Your task to perform on an android device: Clear all items from cart on ebay.com. Search for razer thresher on ebay.com, select the first entry, add it to the cart, then select checkout. Image 0: 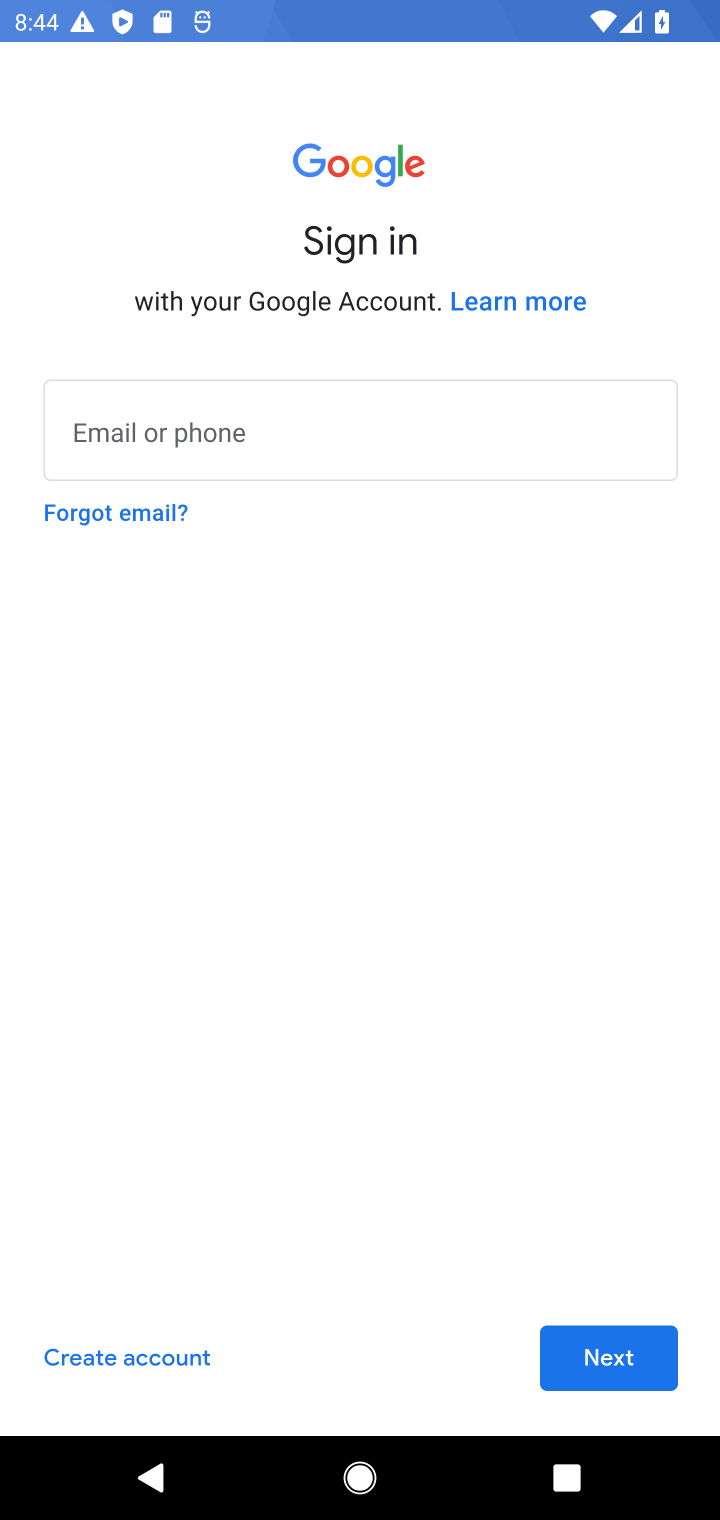
Step 0: press home button
Your task to perform on an android device: Clear all items from cart on ebay.com. Search for razer thresher on ebay.com, select the first entry, add it to the cart, then select checkout. Image 1: 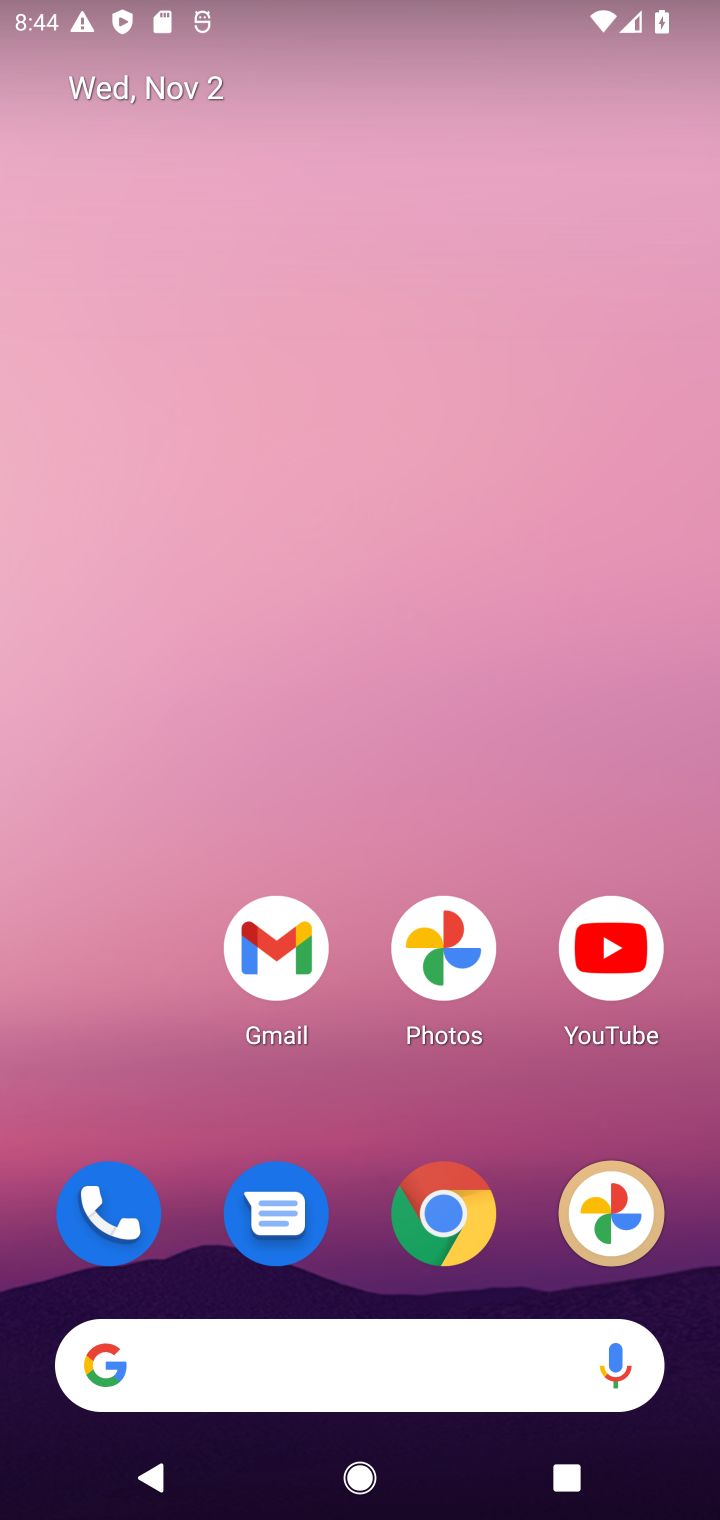
Step 1: click (445, 1226)
Your task to perform on an android device: Clear all items from cart on ebay.com. Search for razer thresher on ebay.com, select the first entry, add it to the cart, then select checkout. Image 2: 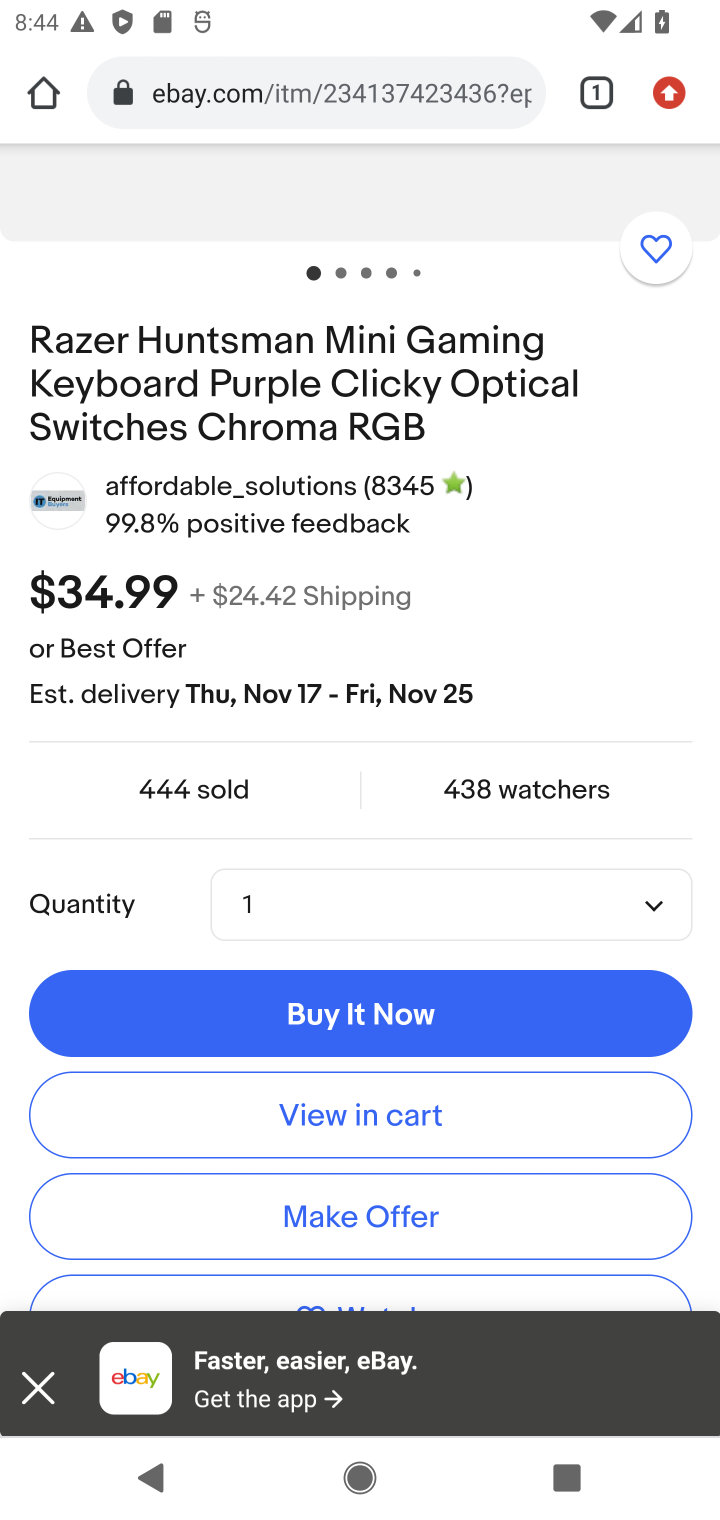
Step 2: click (315, 86)
Your task to perform on an android device: Clear all items from cart on ebay.com. Search for razer thresher on ebay.com, select the first entry, add it to the cart, then select checkout. Image 3: 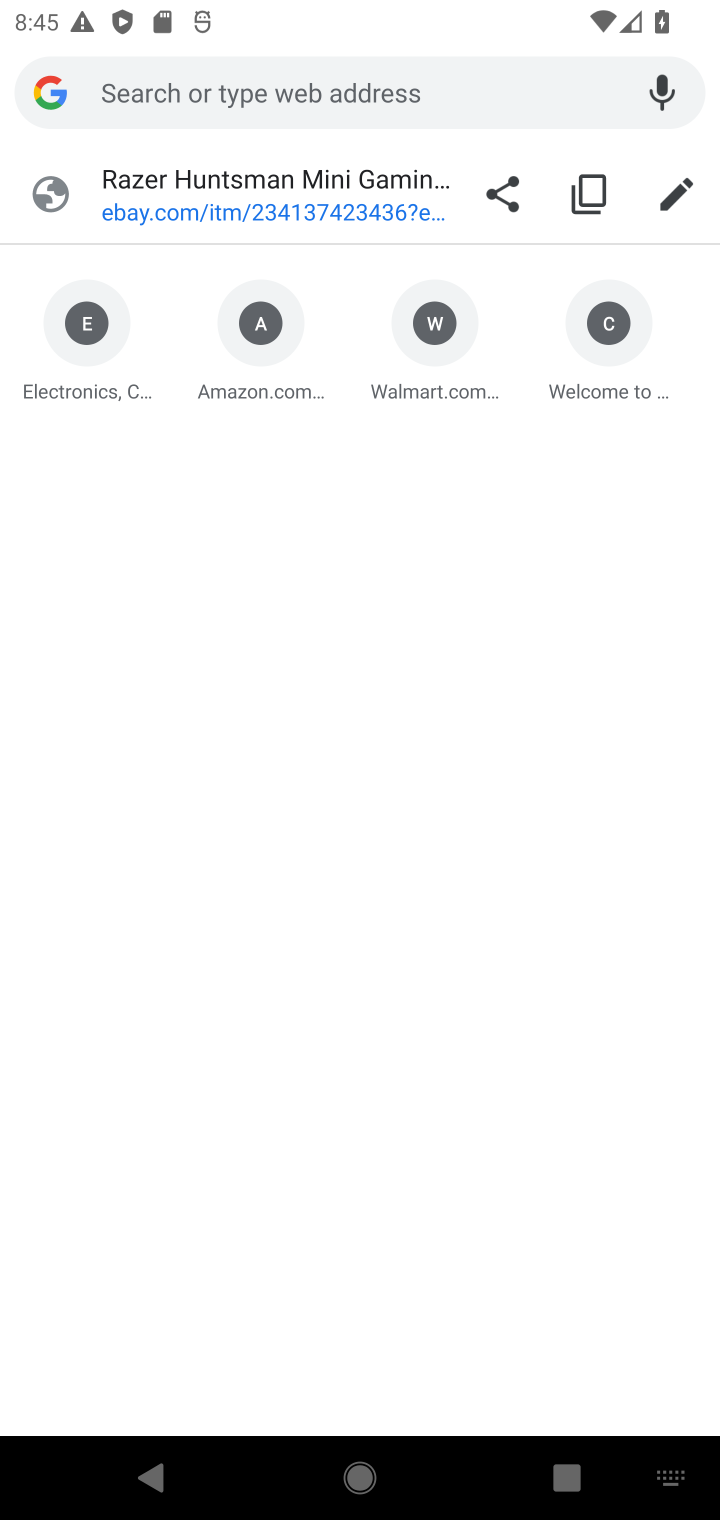
Step 3: type "ebay.com"
Your task to perform on an android device: Clear all items from cart on ebay.com. Search for razer thresher on ebay.com, select the first entry, add it to the cart, then select checkout. Image 4: 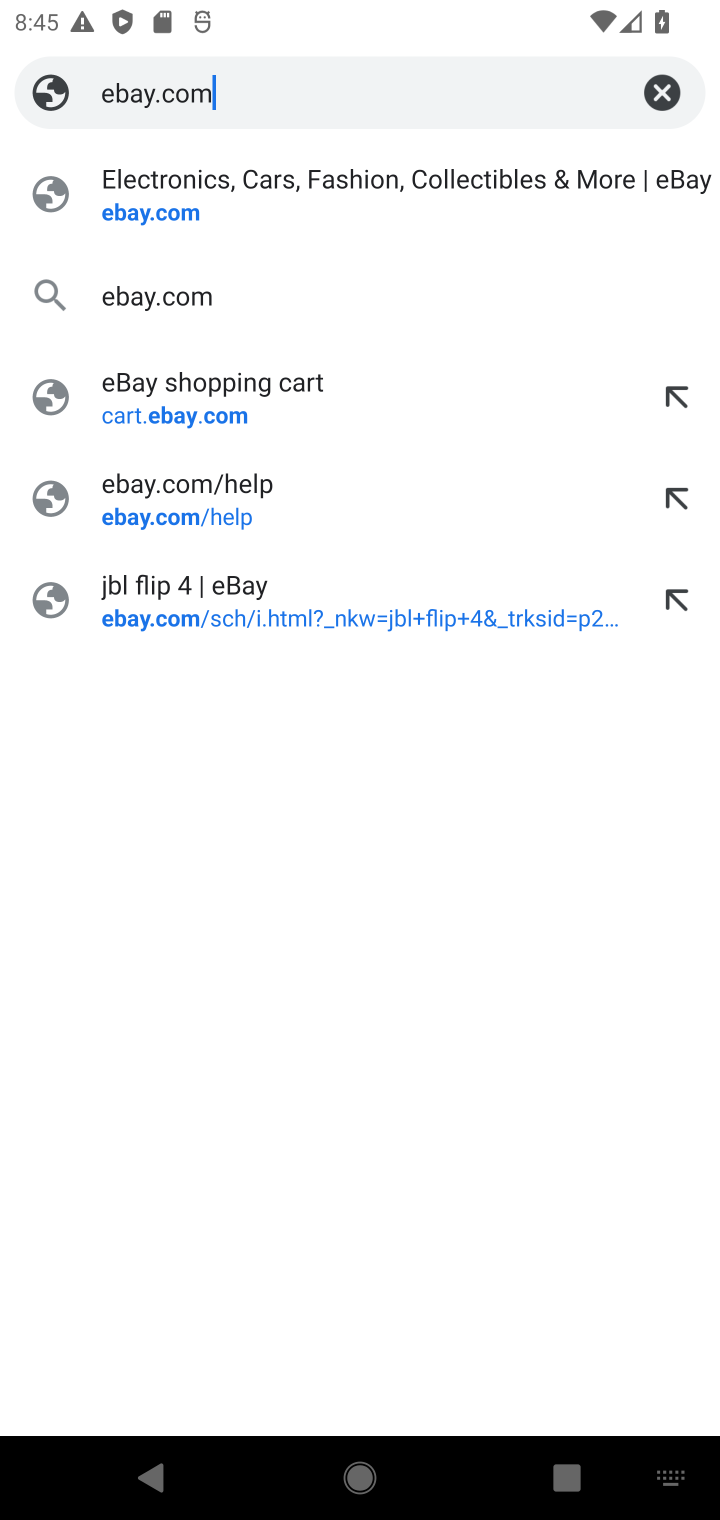
Step 4: click (166, 204)
Your task to perform on an android device: Clear all items from cart on ebay.com. Search for razer thresher on ebay.com, select the first entry, add it to the cart, then select checkout. Image 5: 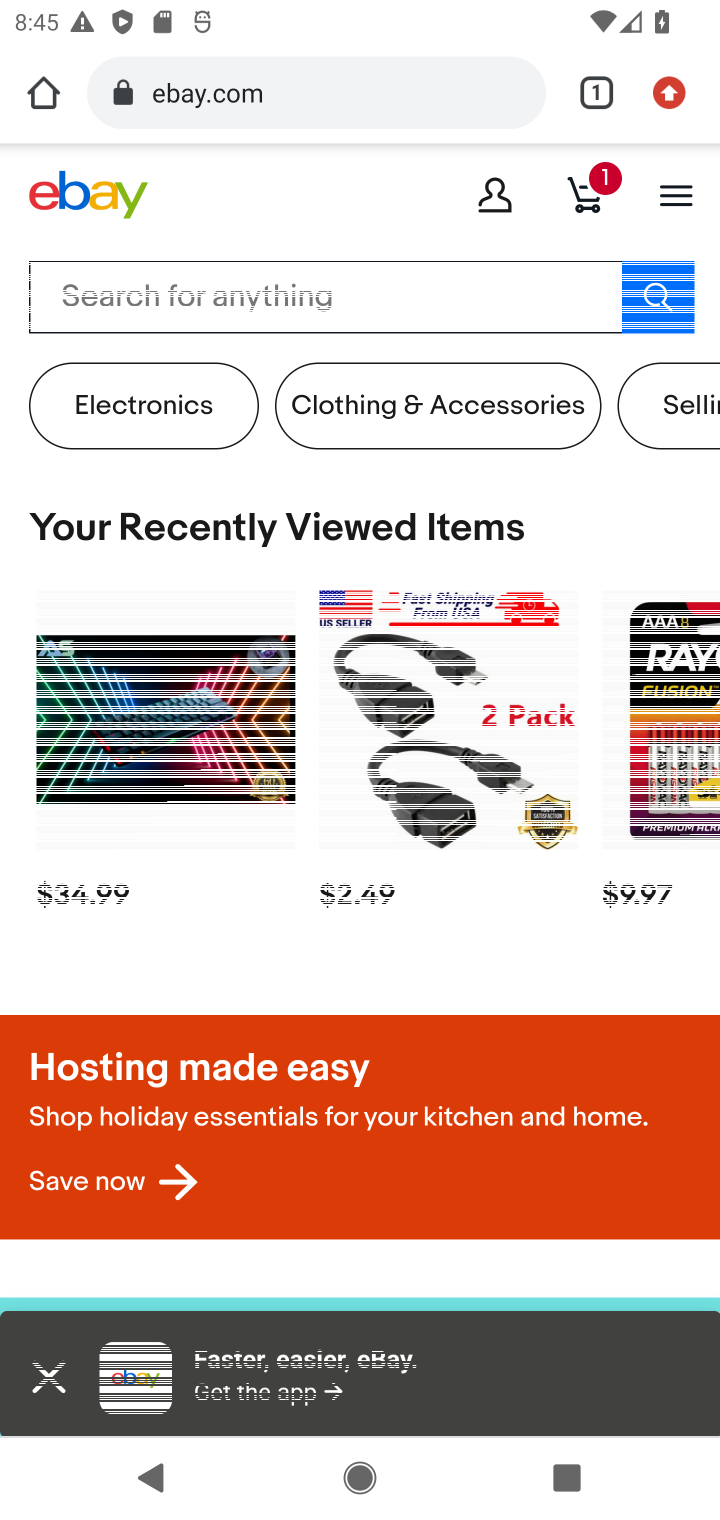
Step 5: click (605, 195)
Your task to perform on an android device: Clear all items from cart on ebay.com. Search for razer thresher on ebay.com, select the first entry, add it to the cart, then select checkout. Image 6: 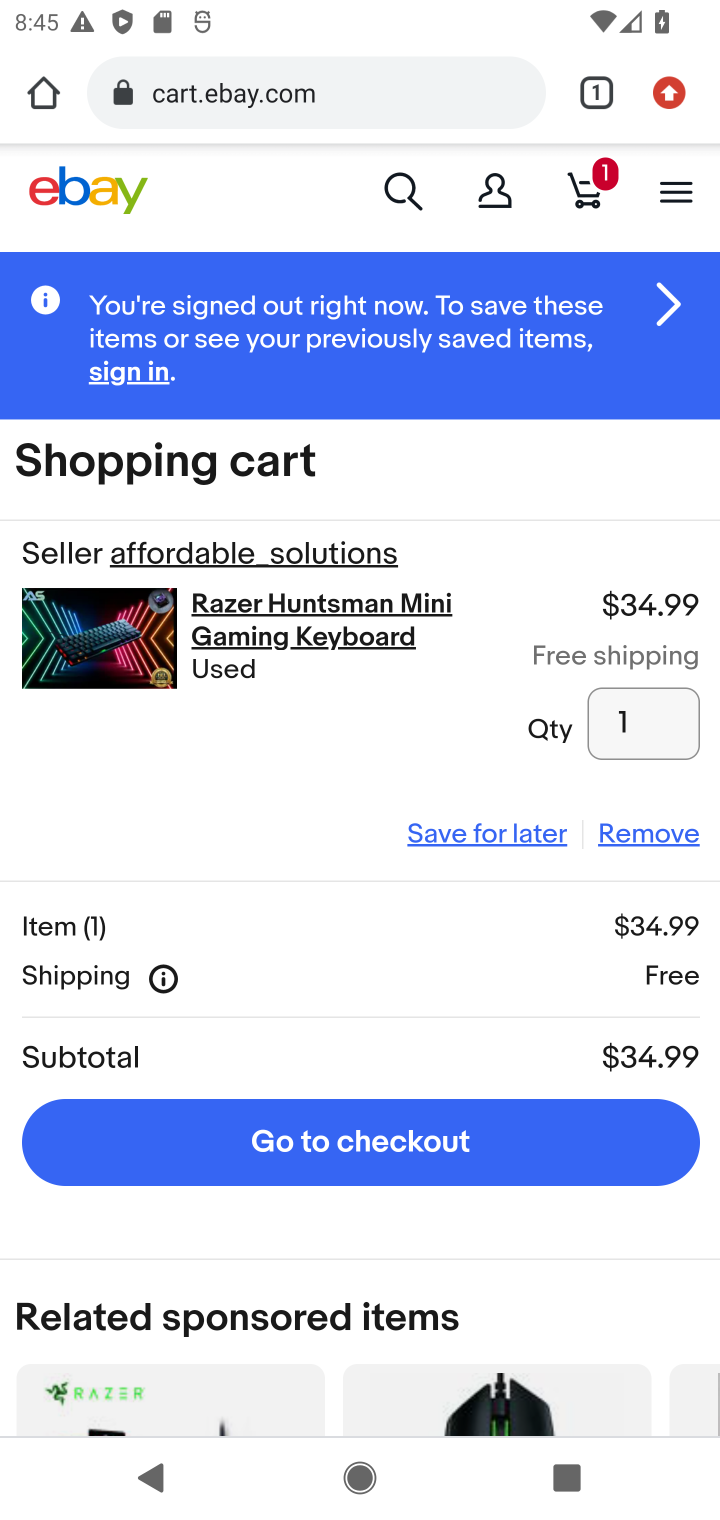
Step 6: click (630, 847)
Your task to perform on an android device: Clear all items from cart on ebay.com. Search for razer thresher on ebay.com, select the first entry, add it to the cart, then select checkout. Image 7: 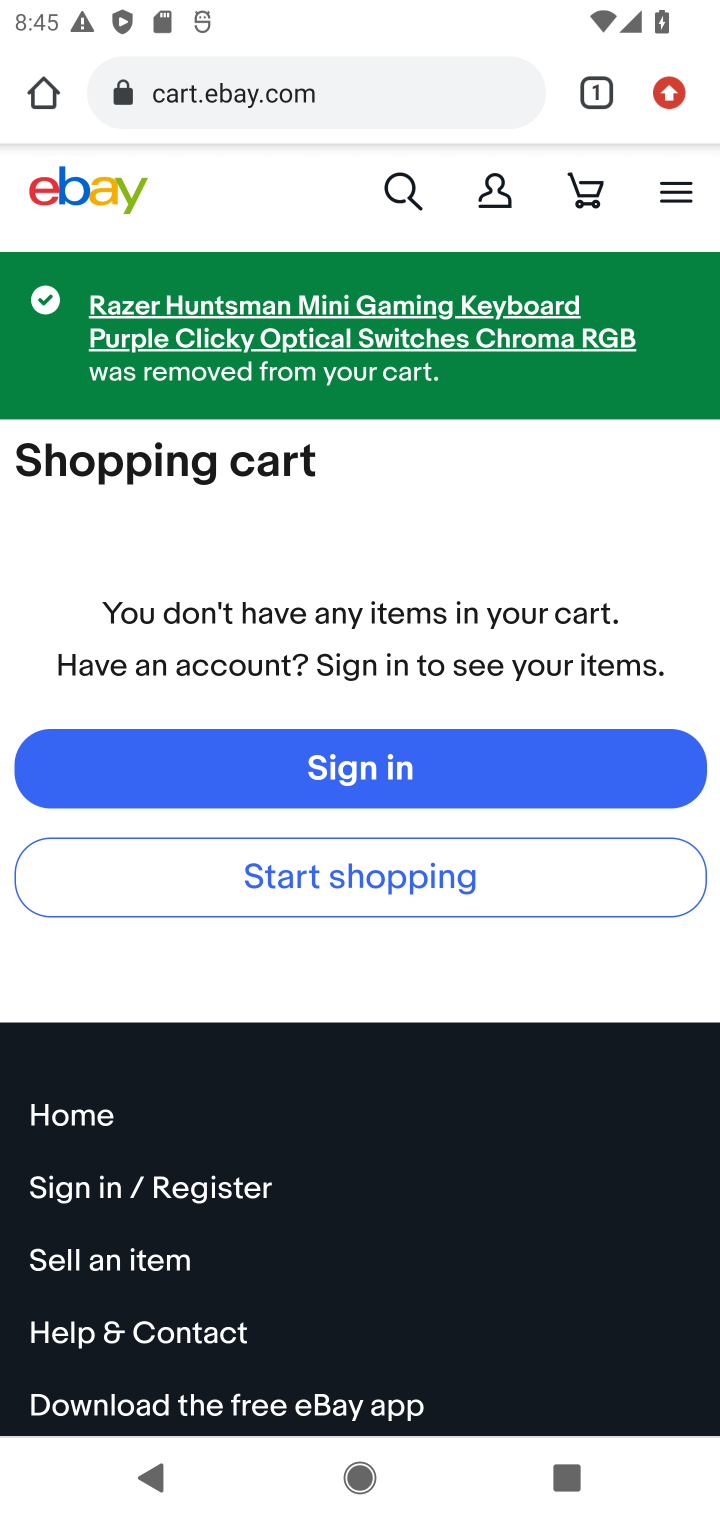
Step 7: click (401, 192)
Your task to perform on an android device: Clear all items from cart on ebay.com. Search for razer thresher on ebay.com, select the first entry, add it to the cart, then select checkout. Image 8: 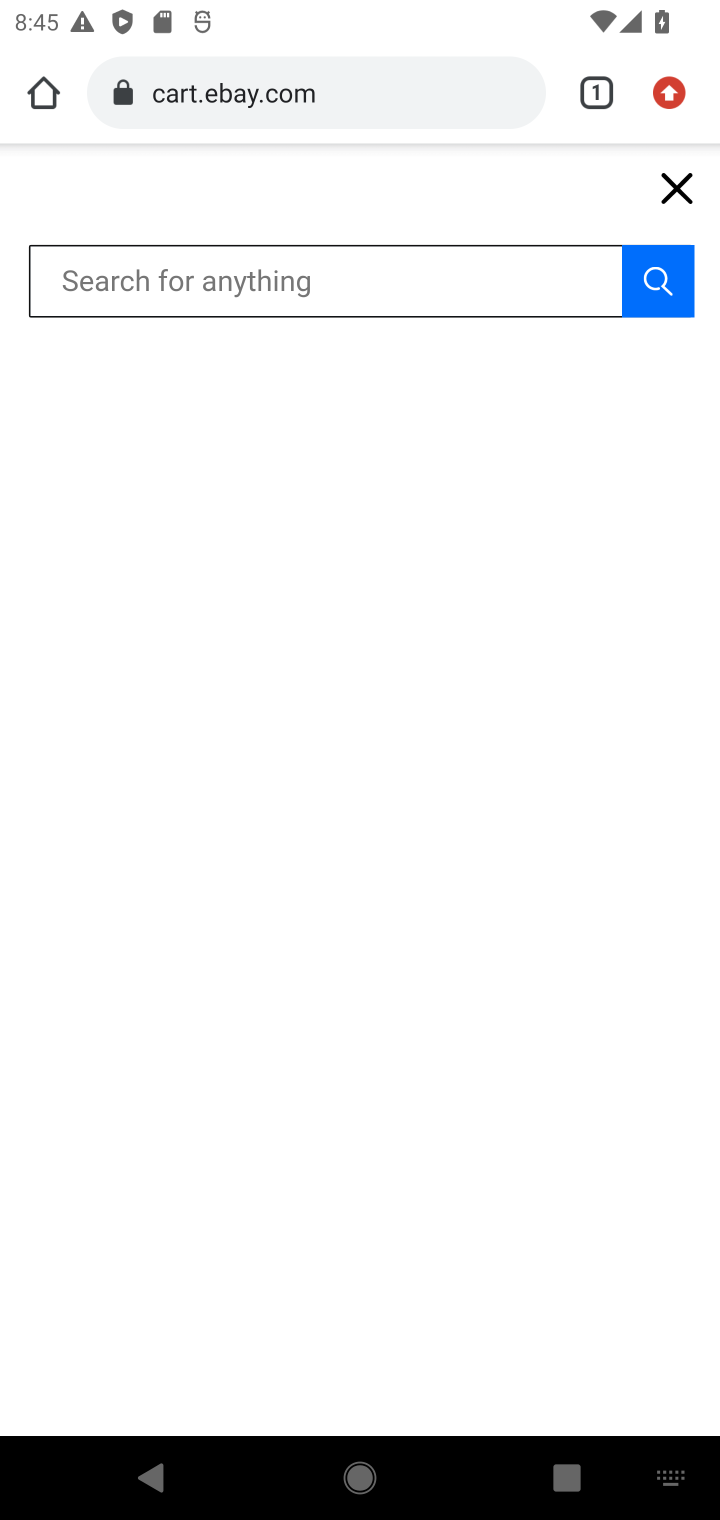
Step 8: type "razer thresher "
Your task to perform on an android device: Clear all items from cart on ebay.com. Search for razer thresher on ebay.com, select the first entry, add it to the cart, then select checkout. Image 9: 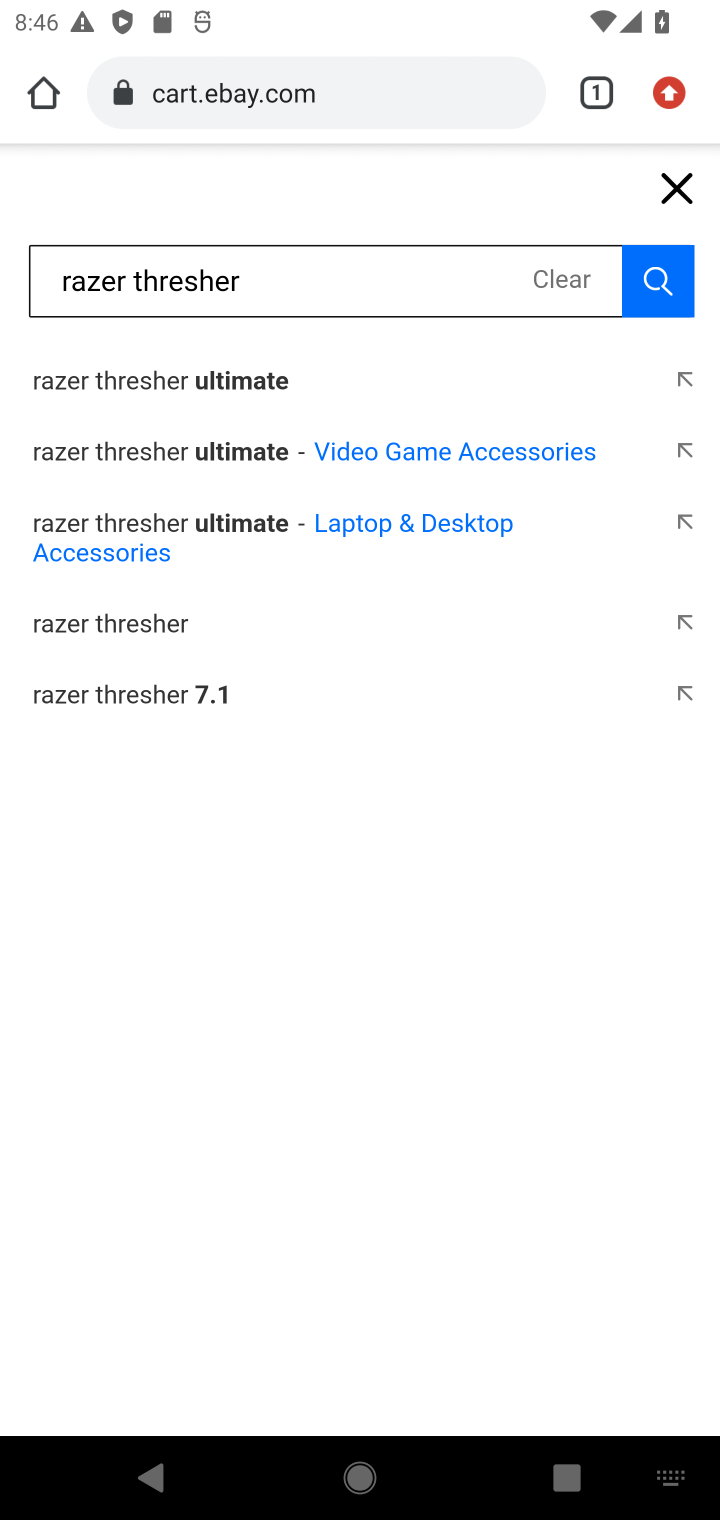
Step 9: click (97, 632)
Your task to perform on an android device: Clear all items from cart on ebay.com. Search for razer thresher on ebay.com, select the first entry, add it to the cart, then select checkout. Image 10: 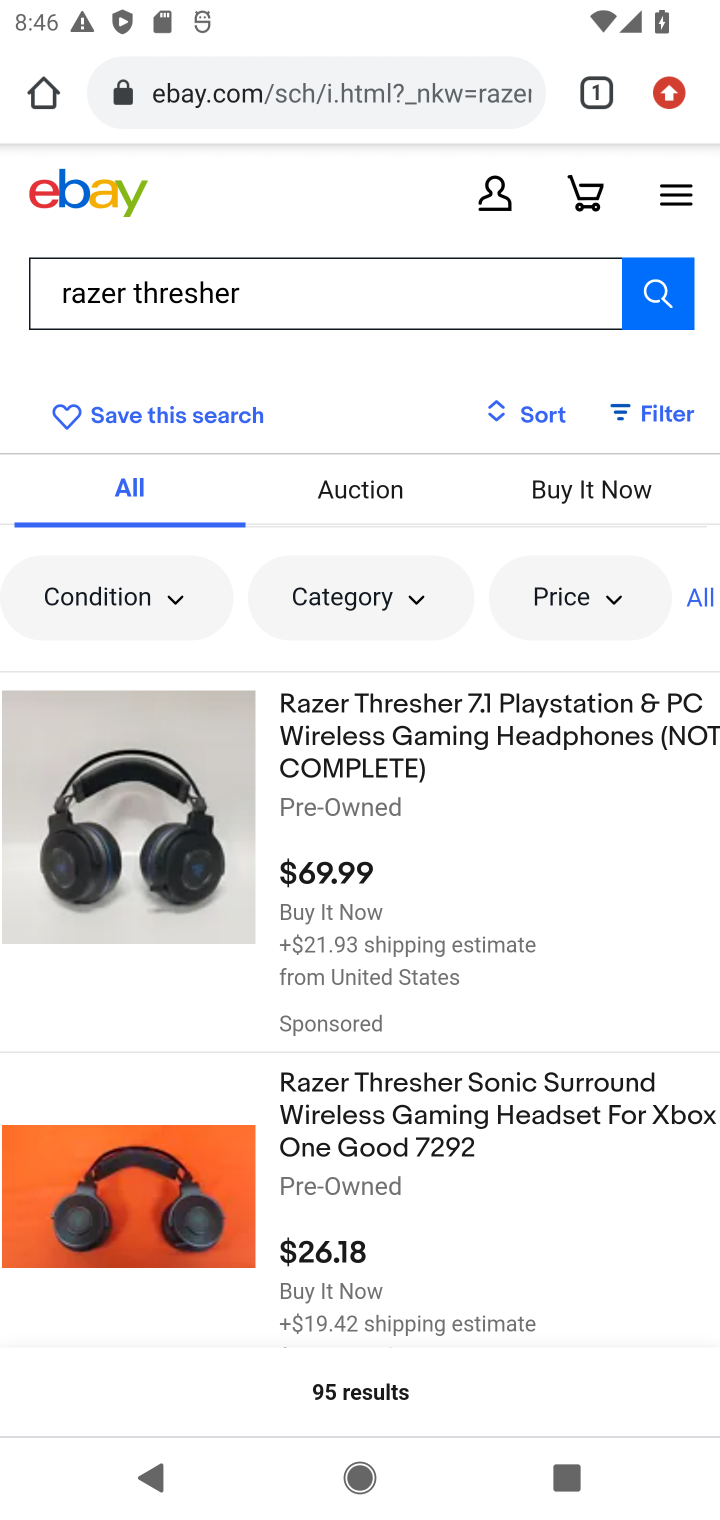
Step 10: click (348, 779)
Your task to perform on an android device: Clear all items from cart on ebay.com. Search for razer thresher on ebay.com, select the first entry, add it to the cart, then select checkout. Image 11: 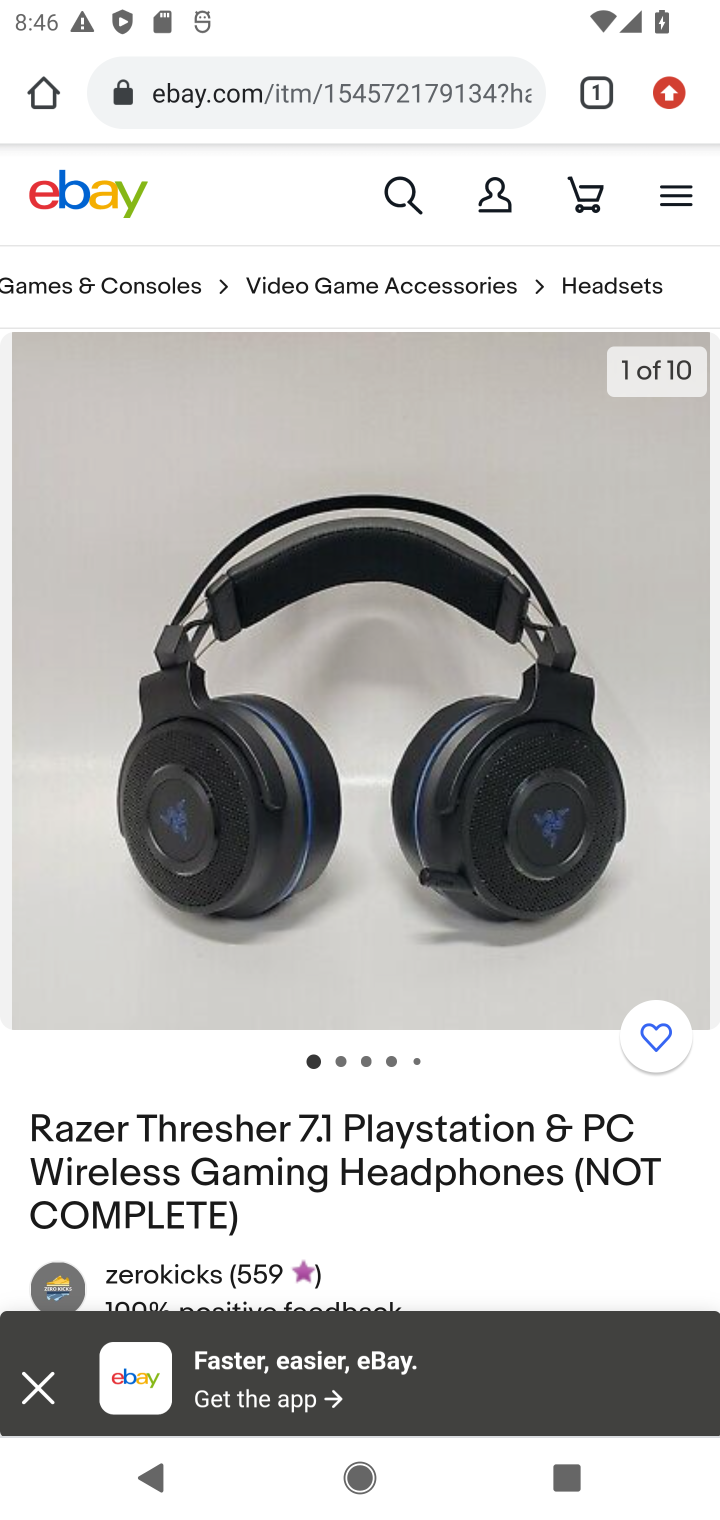
Step 11: drag from (421, 1138) to (440, 664)
Your task to perform on an android device: Clear all items from cart on ebay.com. Search for razer thresher on ebay.com, select the first entry, add it to the cart, then select checkout. Image 12: 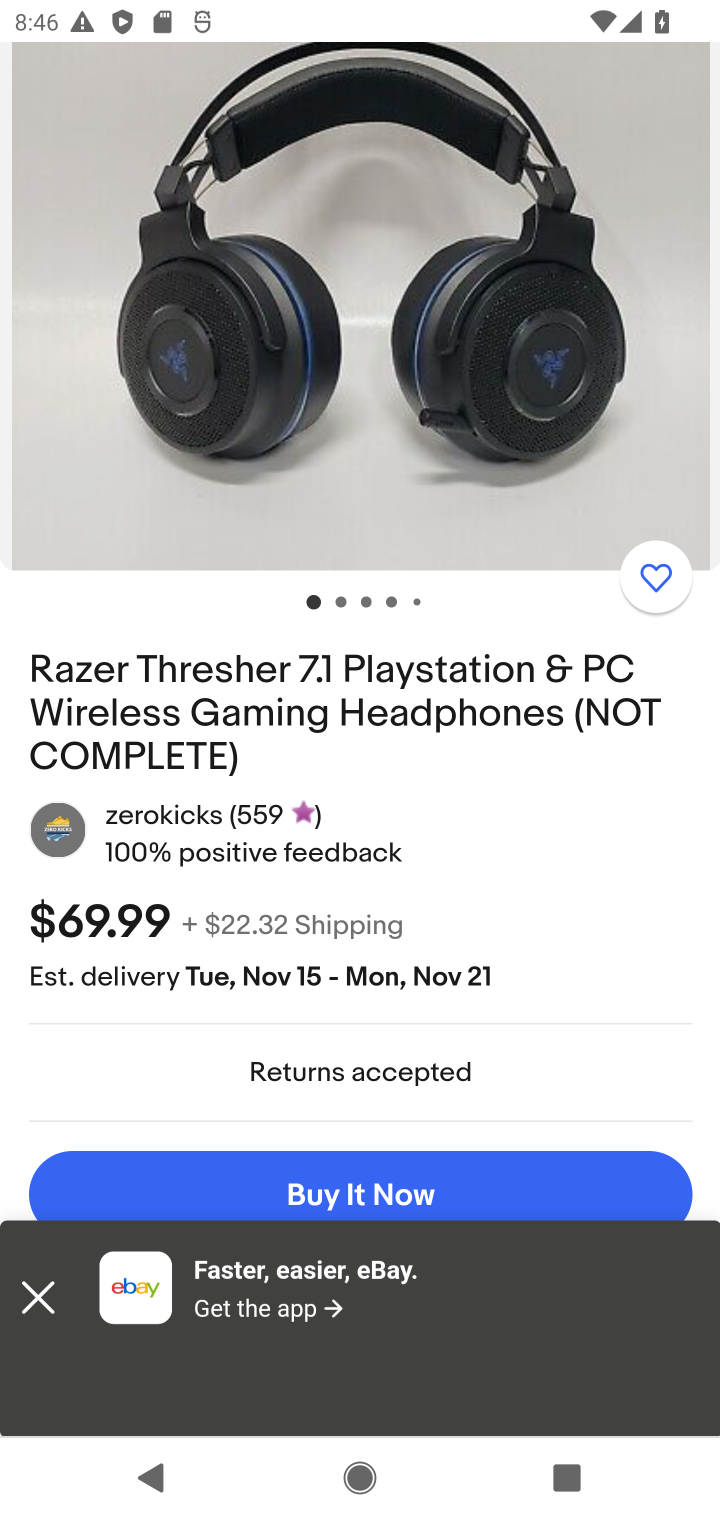
Step 12: drag from (359, 1103) to (398, 816)
Your task to perform on an android device: Clear all items from cart on ebay.com. Search for razer thresher on ebay.com, select the first entry, add it to the cart, then select checkout. Image 13: 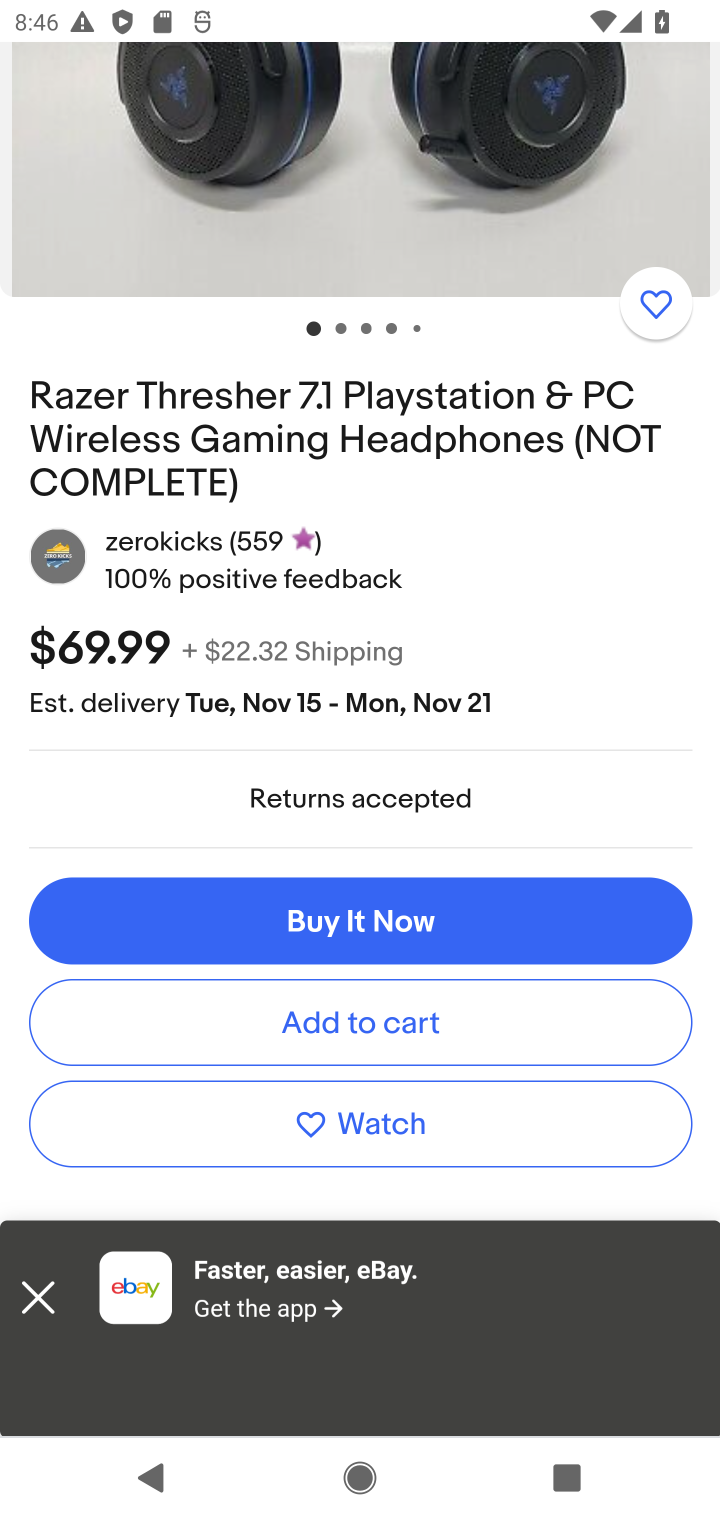
Step 13: click (341, 1022)
Your task to perform on an android device: Clear all items from cart on ebay.com. Search for razer thresher on ebay.com, select the first entry, add it to the cart, then select checkout. Image 14: 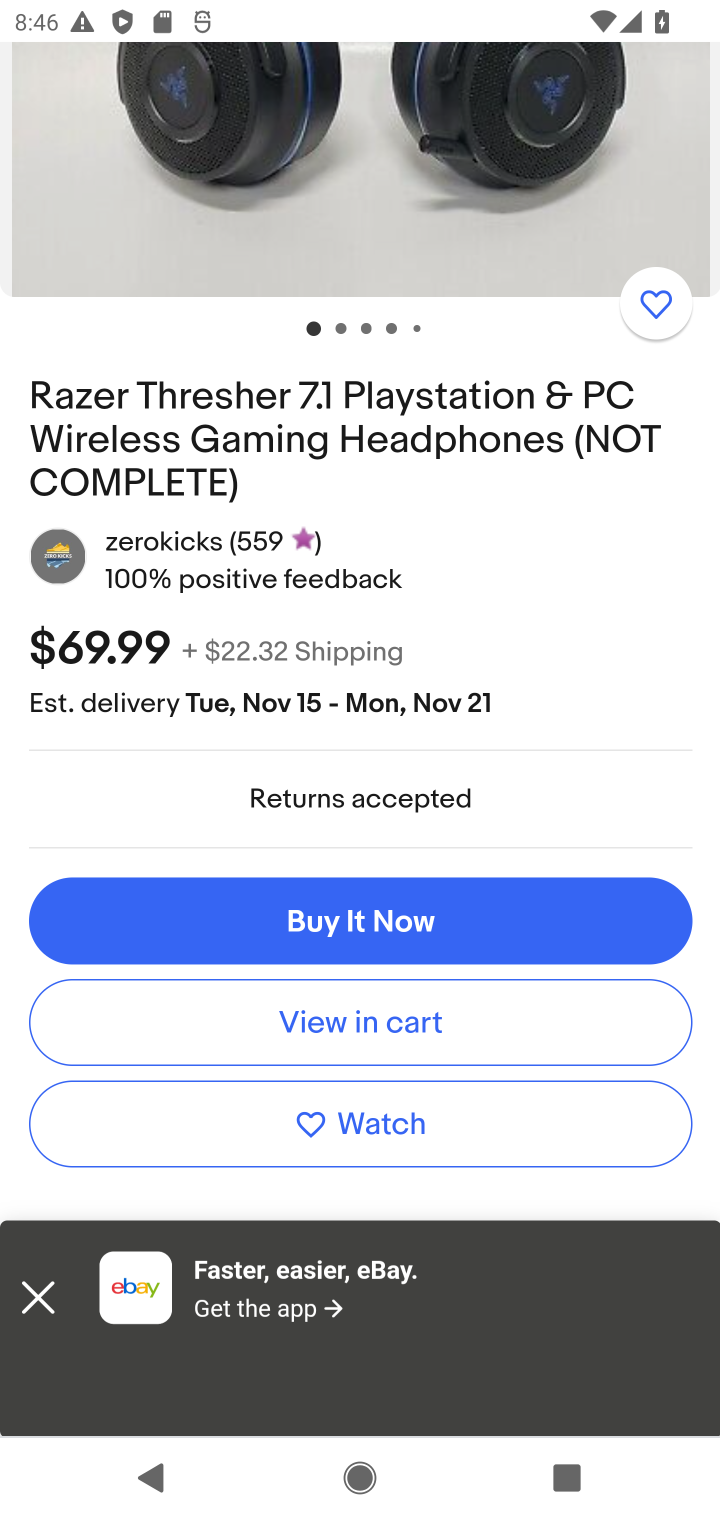
Step 14: click (341, 1022)
Your task to perform on an android device: Clear all items from cart on ebay.com. Search for razer thresher on ebay.com, select the first entry, add it to the cart, then select checkout. Image 15: 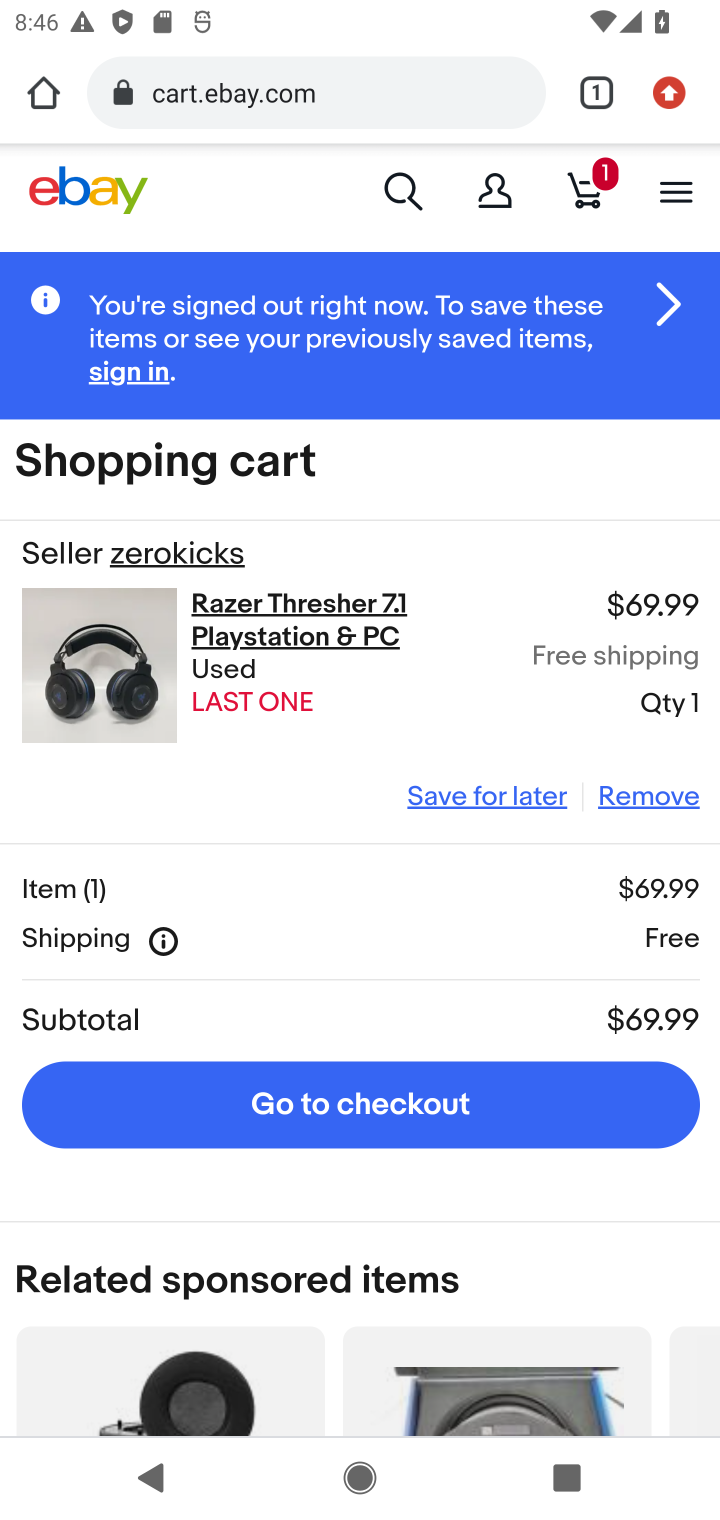
Step 15: click (332, 1108)
Your task to perform on an android device: Clear all items from cart on ebay.com. Search for razer thresher on ebay.com, select the first entry, add it to the cart, then select checkout. Image 16: 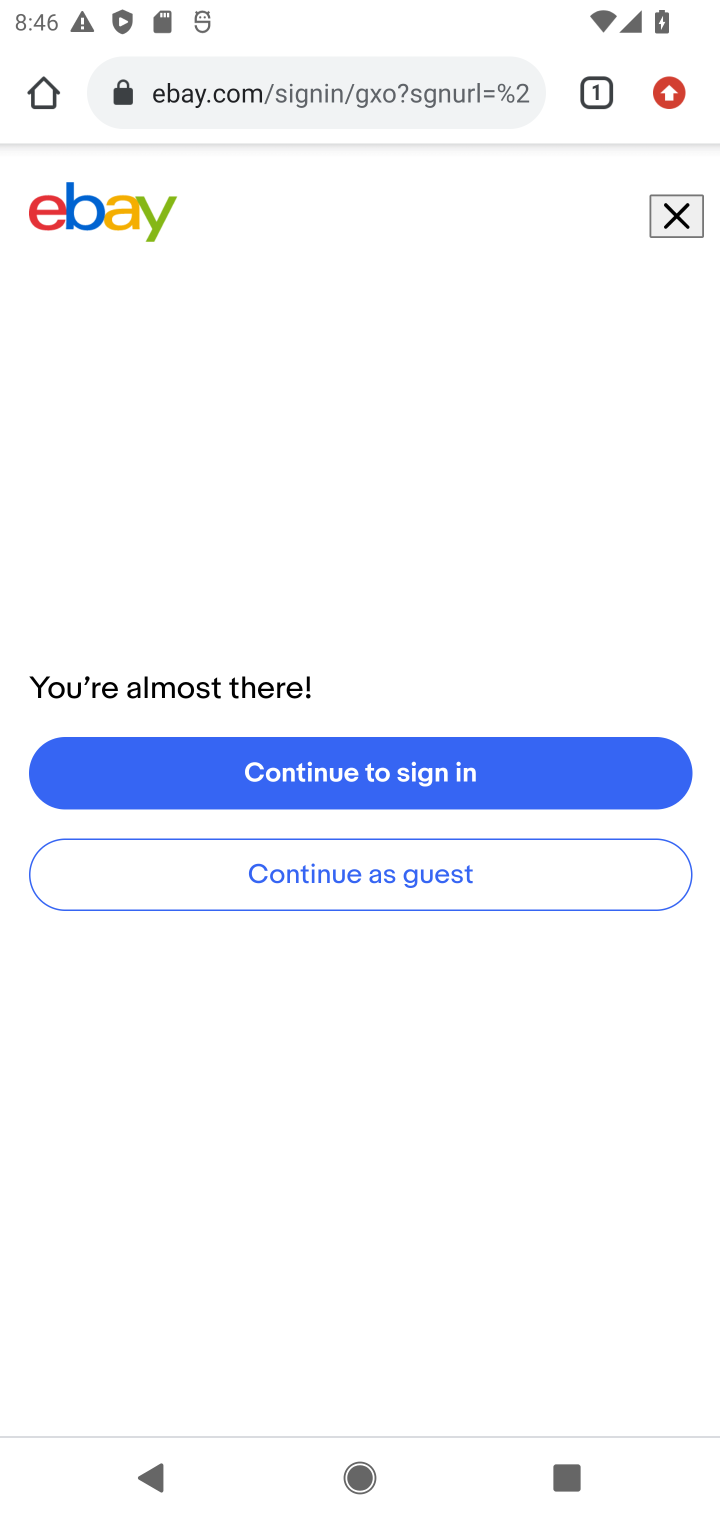
Step 16: task complete